Your task to perform on an android device: change keyboard looks Image 0: 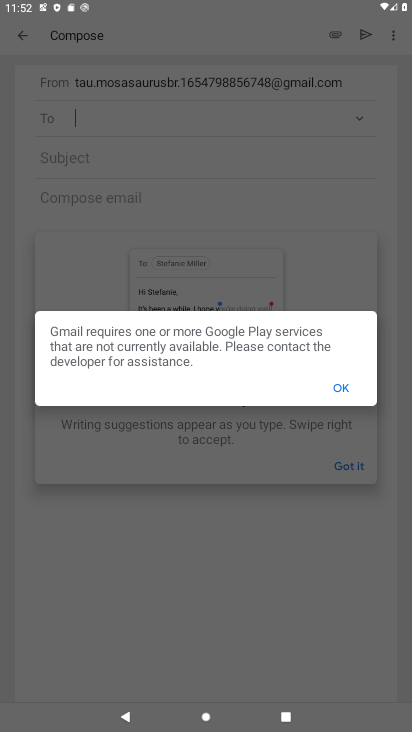
Step 0: press home button
Your task to perform on an android device: change keyboard looks Image 1: 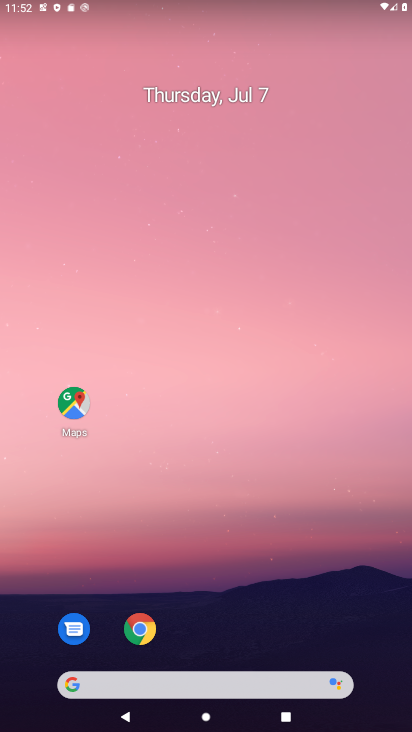
Step 1: drag from (394, 625) to (316, 152)
Your task to perform on an android device: change keyboard looks Image 2: 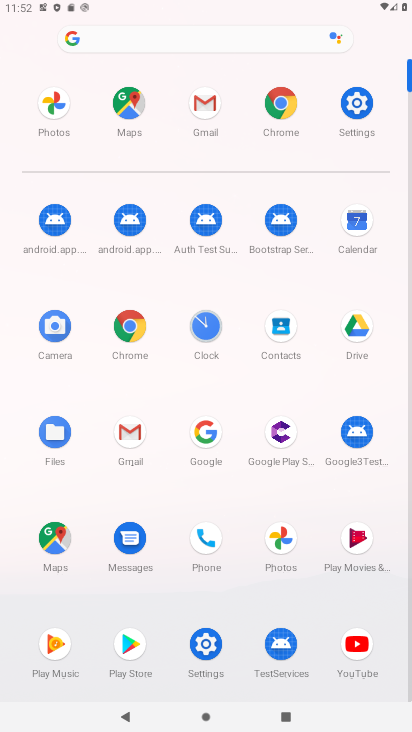
Step 2: click (203, 644)
Your task to perform on an android device: change keyboard looks Image 3: 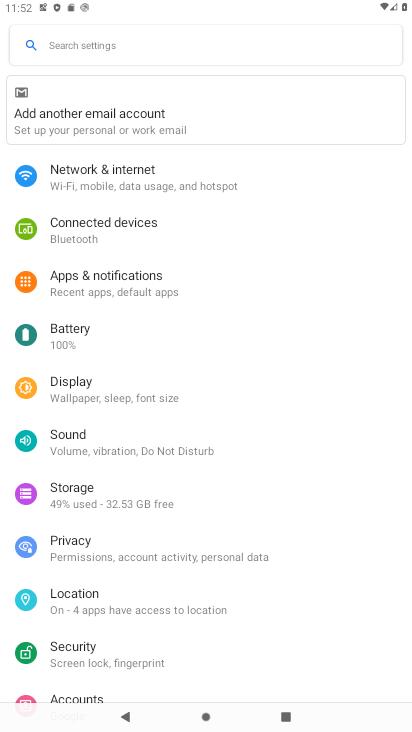
Step 3: drag from (300, 591) to (326, 150)
Your task to perform on an android device: change keyboard looks Image 4: 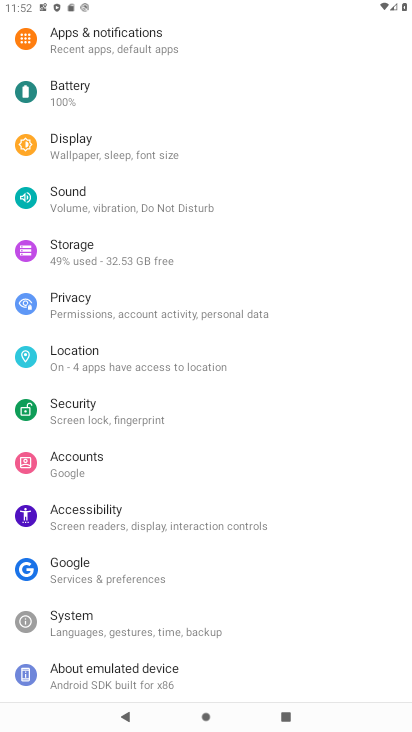
Step 4: click (80, 611)
Your task to perform on an android device: change keyboard looks Image 5: 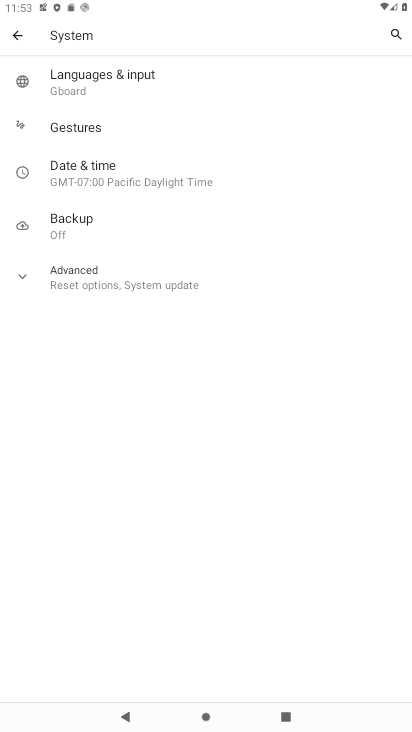
Step 5: click (78, 79)
Your task to perform on an android device: change keyboard looks Image 6: 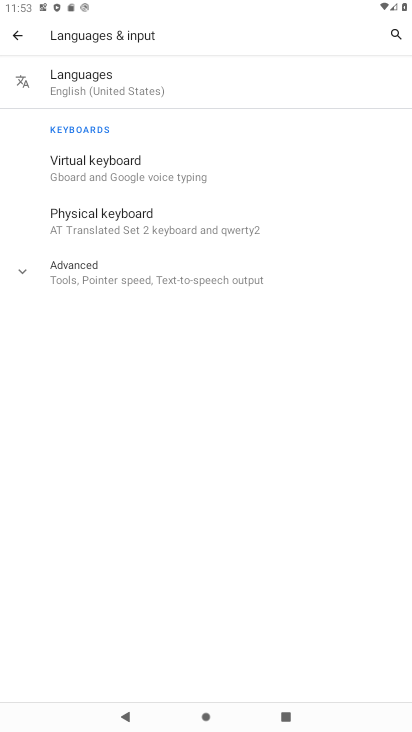
Step 6: click (13, 272)
Your task to perform on an android device: change keyboard looks Image 7: 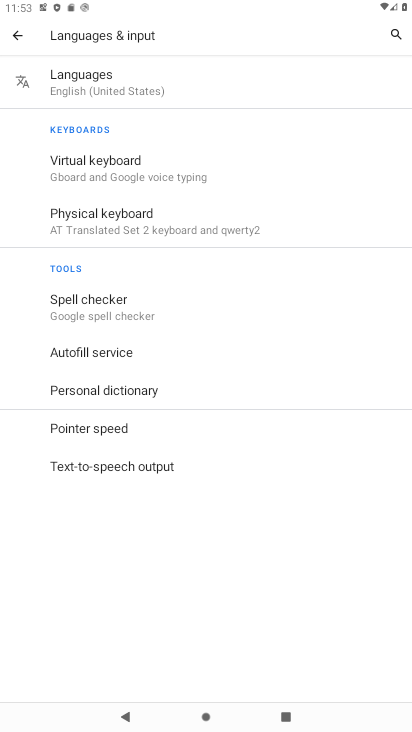
Step 7: click (108, 202)
Your task to perform on an android device: change keyboard looks Image 8: 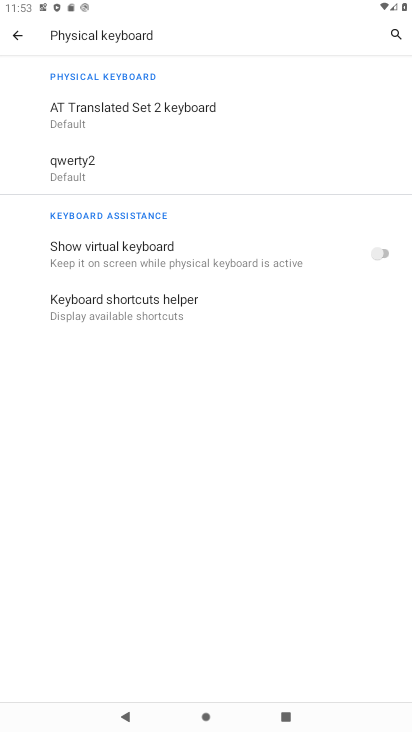
Step 8: click (67, 168)
Your task to perform on an android device: change keyboard looks Image 9: 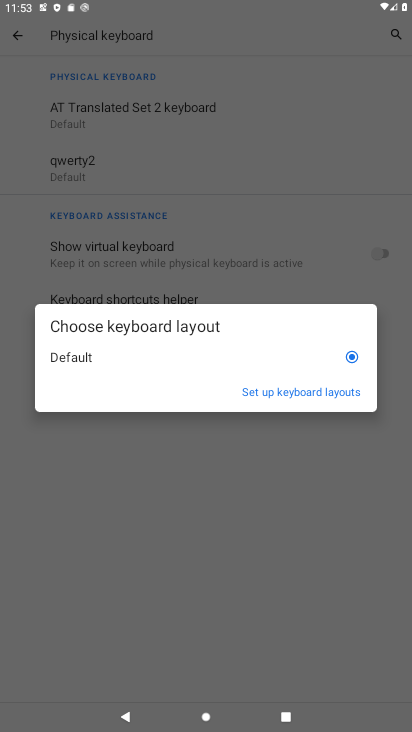
Step 9: click (315, 390)
Your task to perform on an android device: change keyboard looks Image 10: 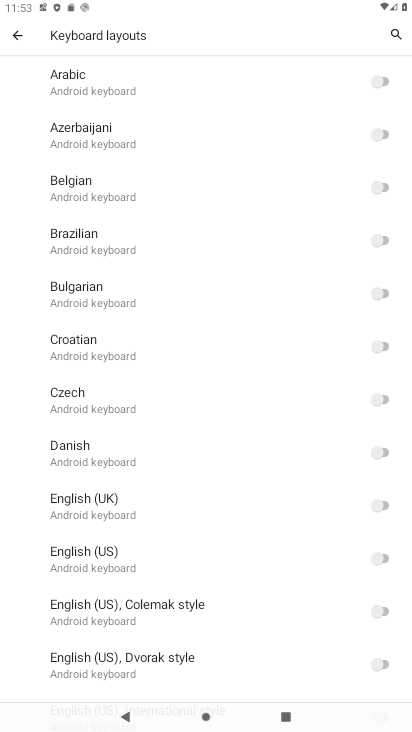
Step 10: drag from (243, 640) to (260, 348)
Your task to perform on an android device: change keyboard looks Image 11: 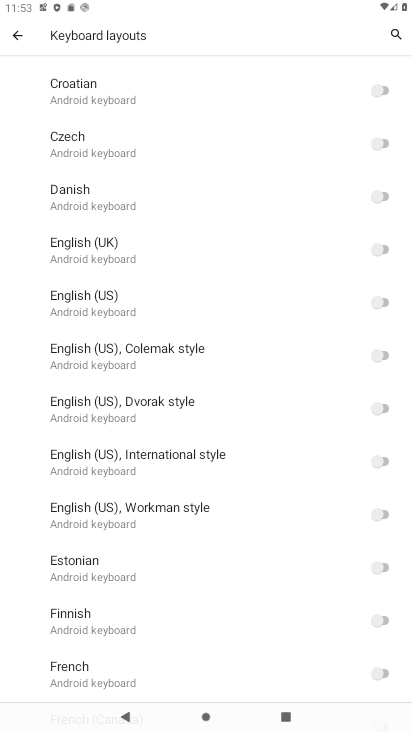
Step 11: click (388, 251)
Your task to perform on an android device: change keyboard looks Image 12: 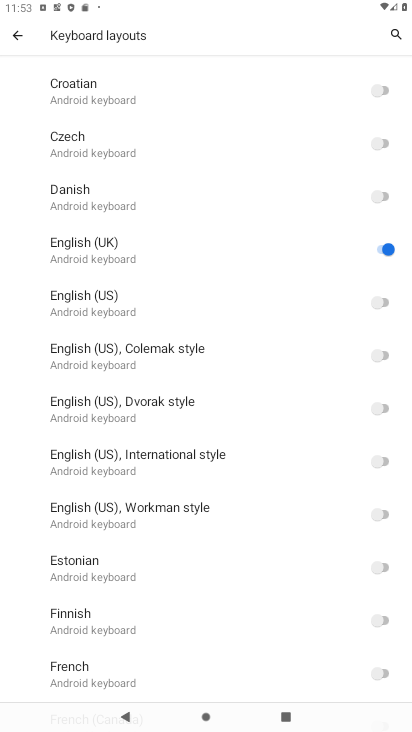
Step 12: task complete